Your task to perform on an android device: Go to settings Image 0: 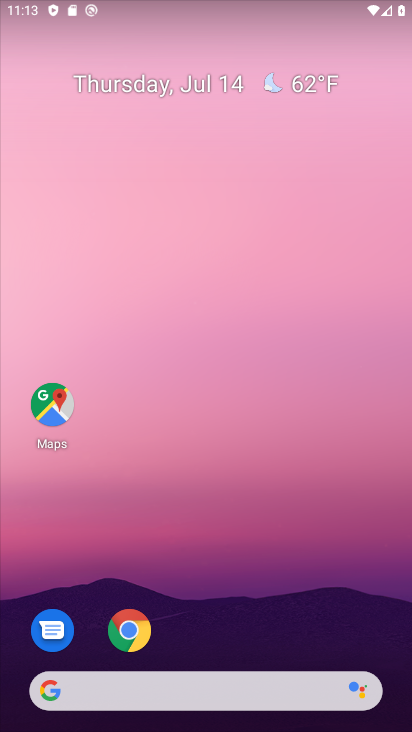
Step 0: drag from (229, 387) to (209, 249)
Your task to perform on an android device: Go to settings Image 1: 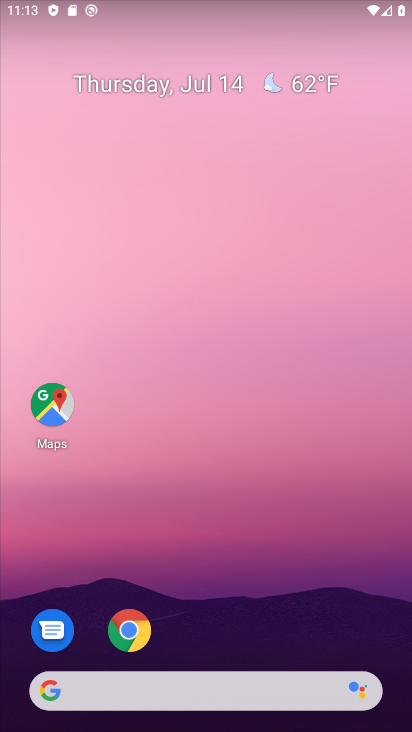
Step 1: drag from (191, 292) to (185, 241)
Your task to perform on an android device: Go to settings Image 2: 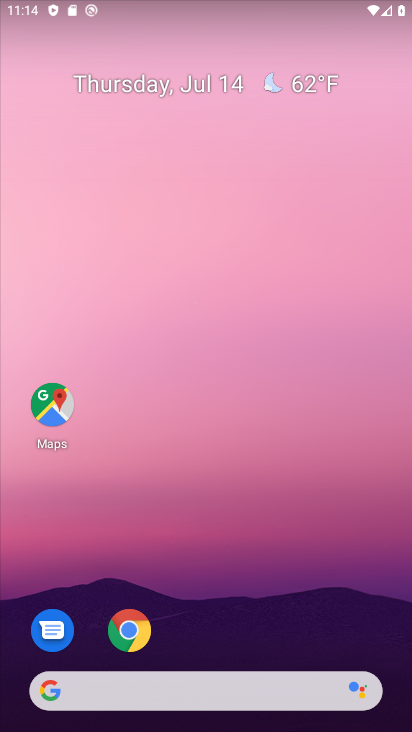
Step 2: drag from (261, 564) to (236, 38)
Your task to perform on an android device: Go to settings Image 3: 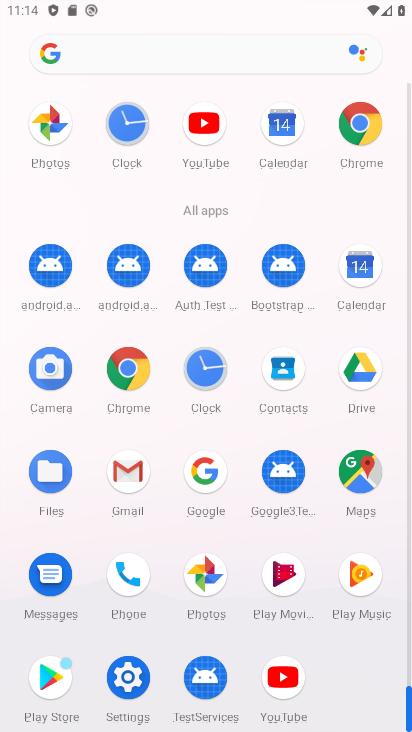
Step 3: click (126, 680)
Your task to perform on an android device: Go to settings Image 4: 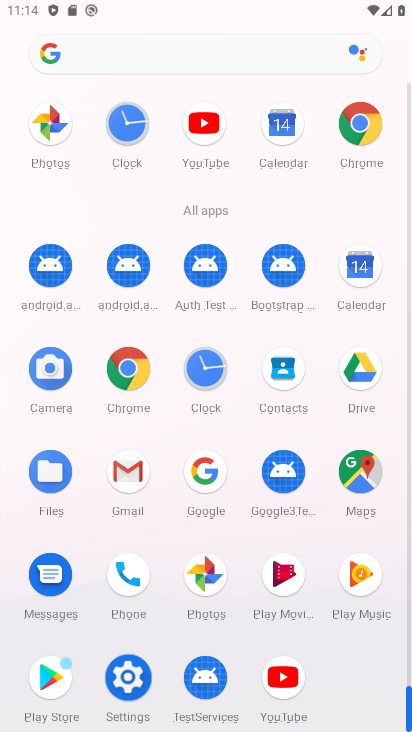
Step 4: click (125, 680)
Your task to perform on an android device: Go to settings Image 5: 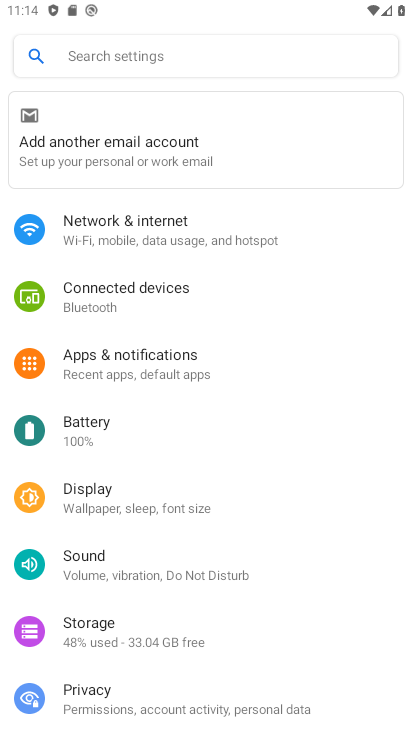
Step 5: task complete